Your task to perform on an android device: When is my next appointment? Image 0: 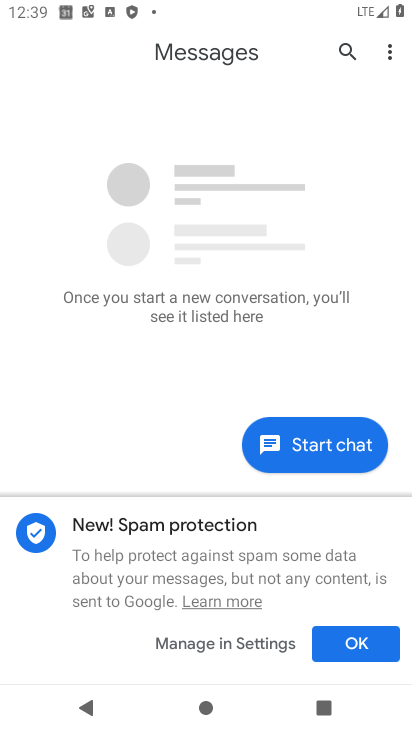
Step 0: press back button
Your task to perform on an android device: When is my next appointment? Image 1: 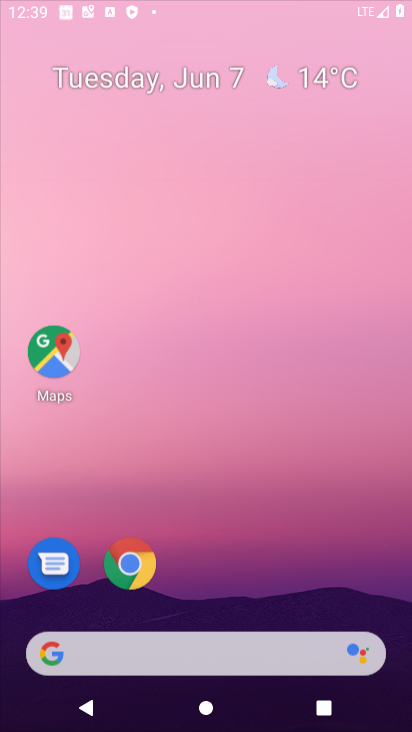
Step 1: press home button
Your task to perform on an android device: When is my next appointment? Image 2: 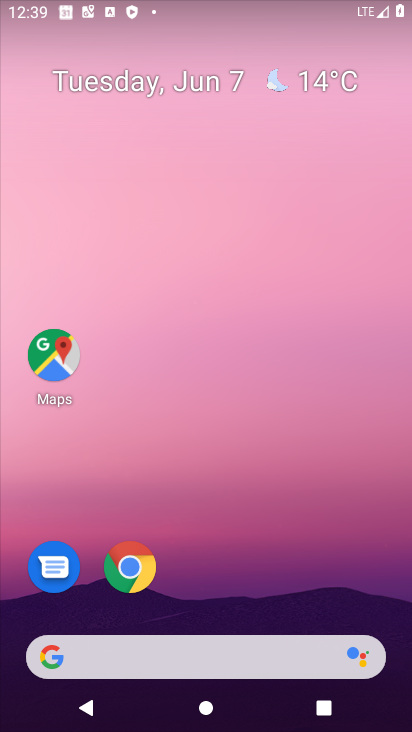
Step 2: drag from (308, 485) to (313, 176)
Your task to perform on an android device: When is my next appointment? Image 3: 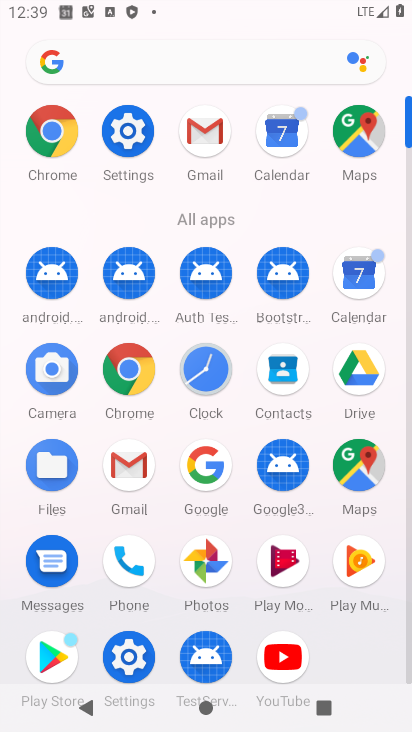
Step 3: click (376, 262)
Your task to perform on an android device: When is my next appointment? Image 4: 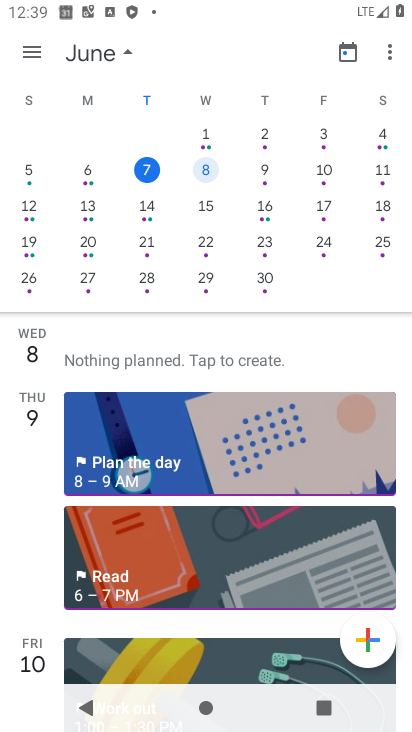
Step 4: click (200, 170)
Your task to perform on an android device: When is my next appointment? Image 5: 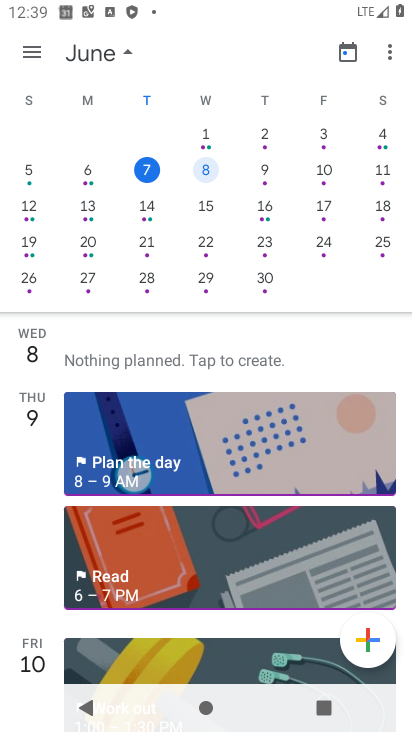
Step 5: task complete